Your task to perform on an android device: Open eBay Image 0: 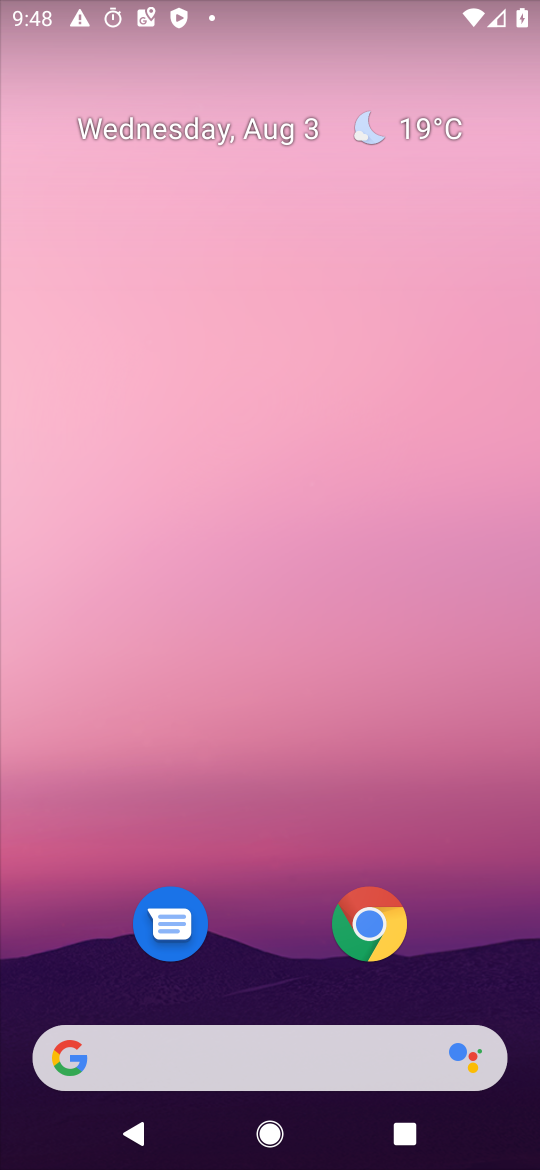
Step 0: press home button
Your task to perform on an android device: Open eBay Image 1: 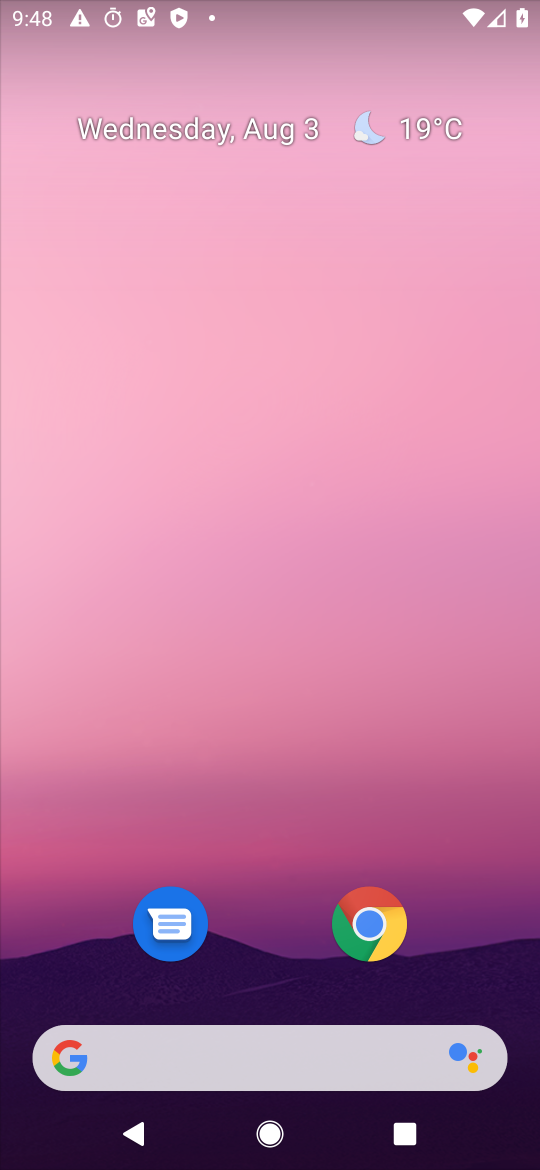
Step 1: click (367, 923)
Your task to perform on an android device: Open eBay Image 2: 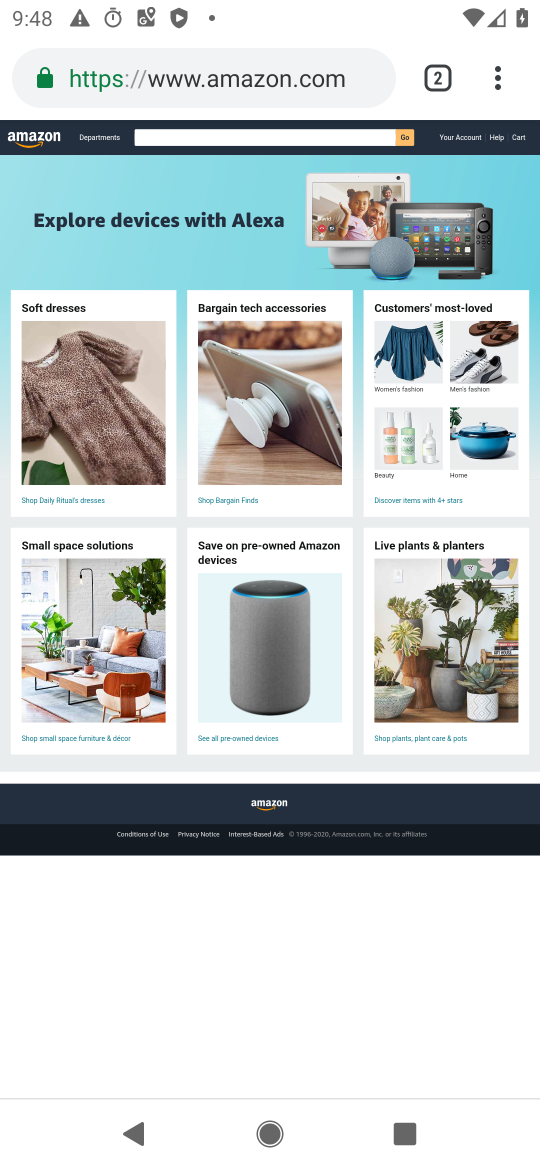
Step 2: click (442, 63)
Your task to perform on an android device: Open eBay Image 3: 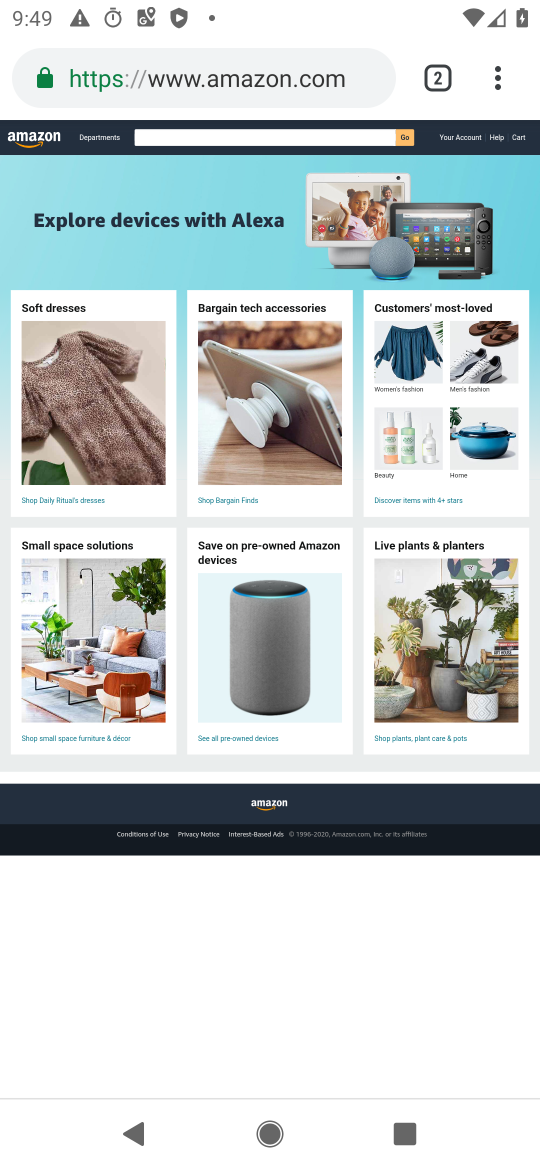
Step 3: click (426, 67)
Your task to perform on an android device: Open eBay Image 4: 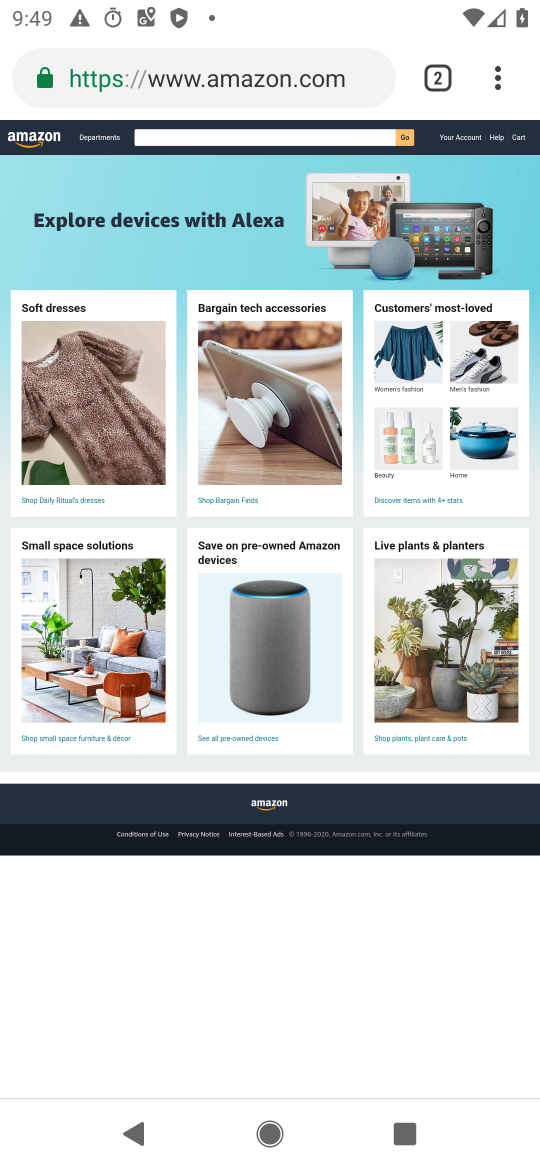
Step 4: click (438, 75)
Your task to perform on an android device: Open eBay Image 5: 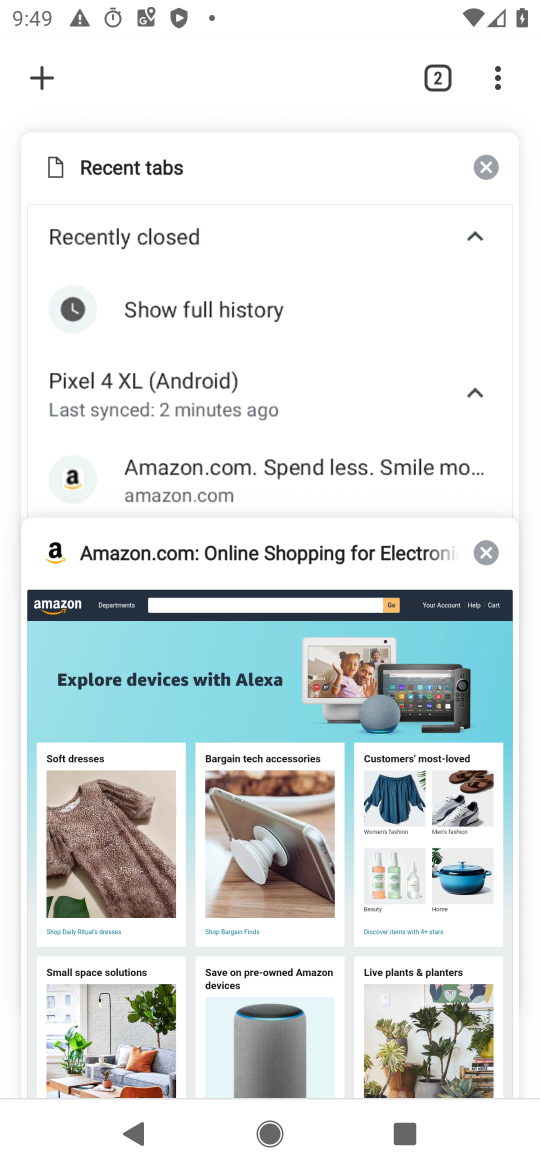
Step 5: click (52, 72)
Your task to perform on an android device: Open eBay Image 6: 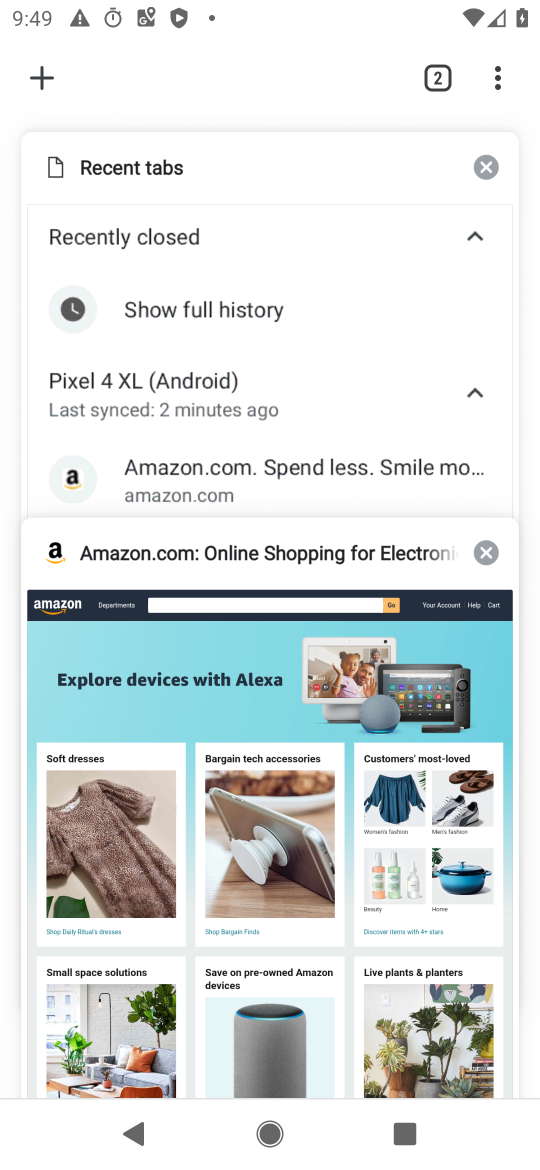
Step 6: click (47, 80)
Your task to perform on an android device: Open eBay Image 7: 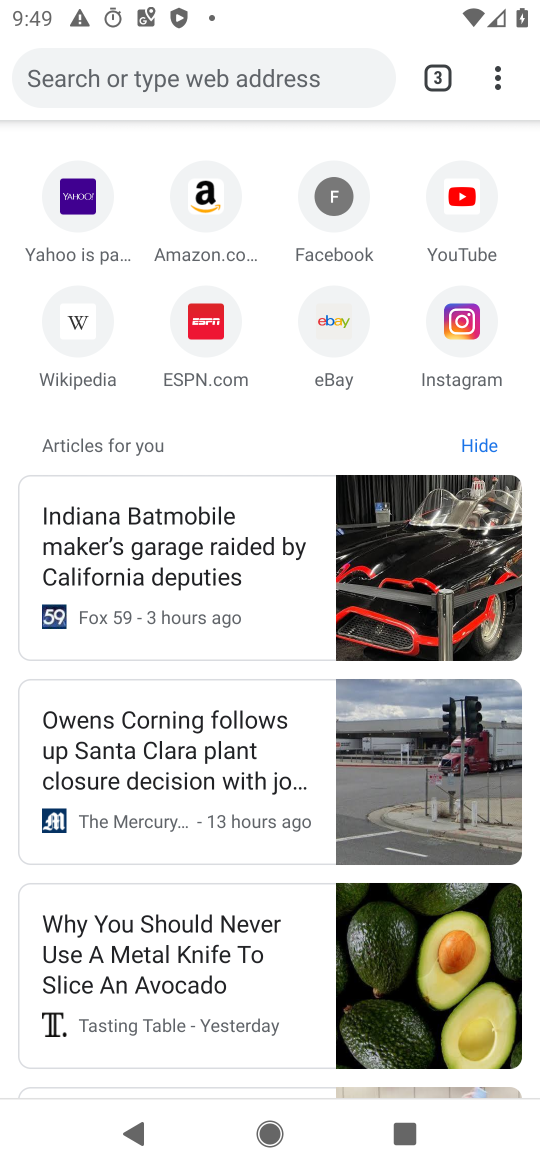
Step 7: click (327, 320)
Your task to perform on an android device: Open eBay Image 8: 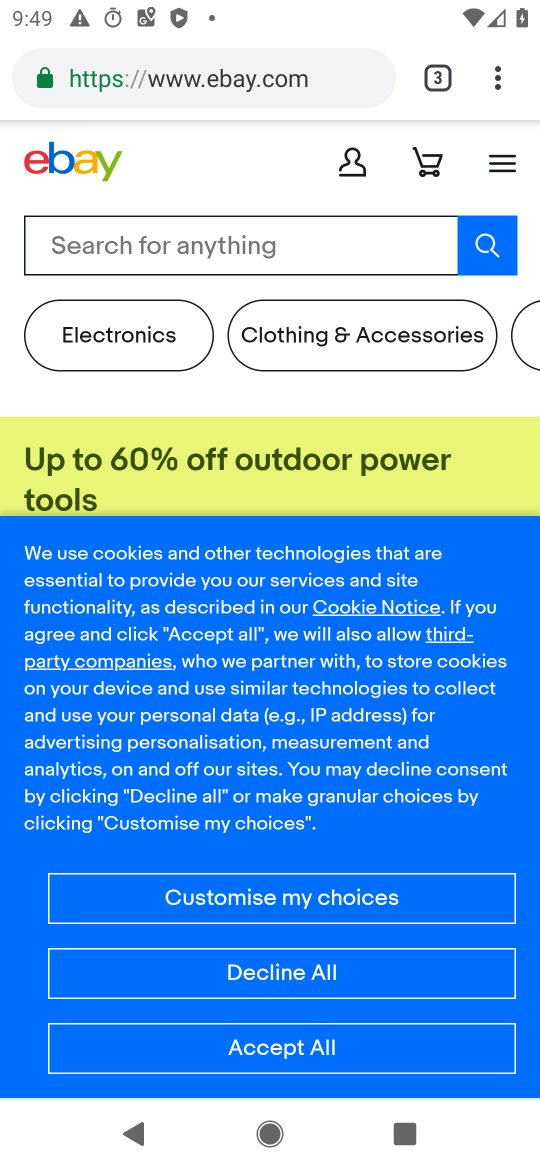
Step 8: click (294, 1051)
Your task to perform on an android device: Open eBay Image 9: 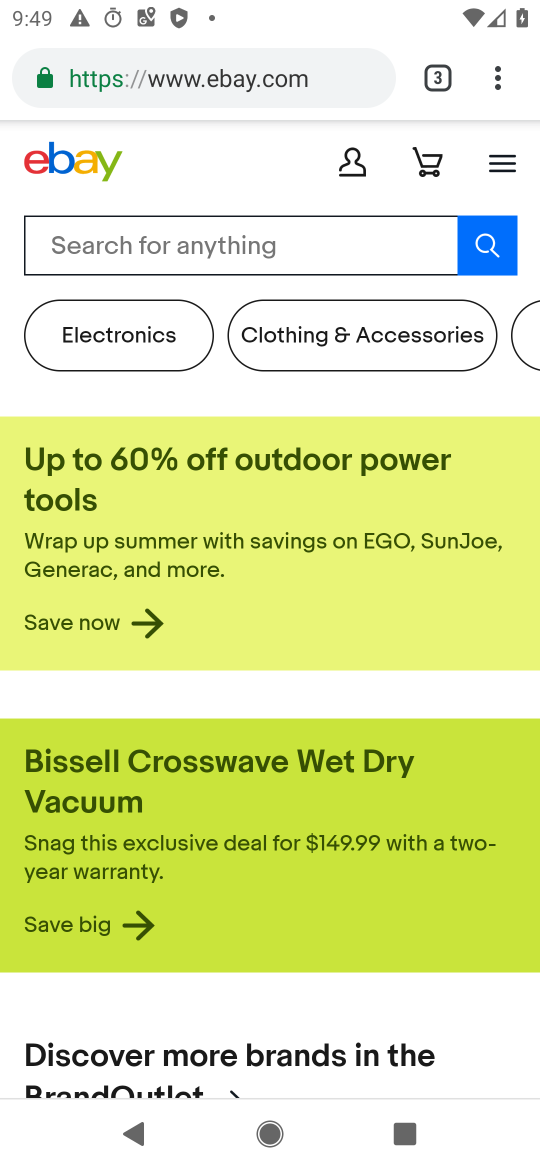
Step 9: task complete